Your task to perform on an android device: delete location history Image 0: 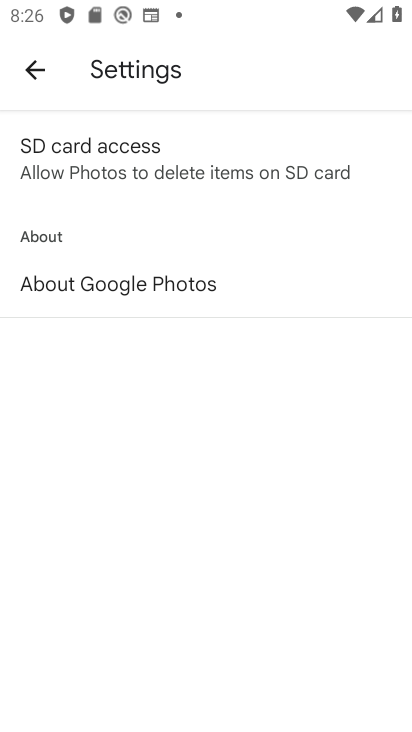
Step 0: press home button
Your task to perform on an android device: delete location history Image 1: 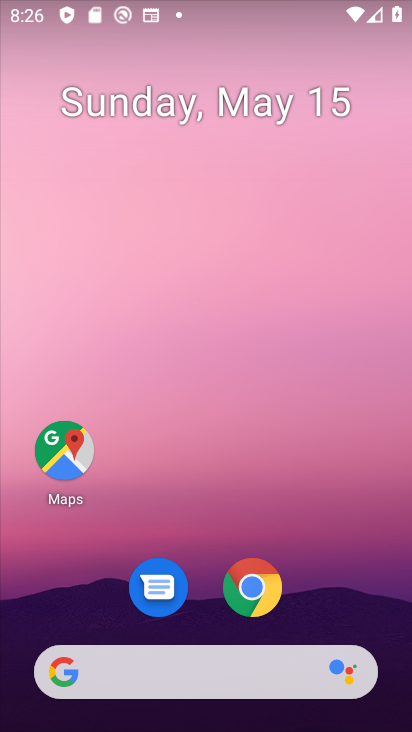
Step 1: drag from (374, 605) to (289, 16)
Your task to perform on an android device: delete location history Image 2: 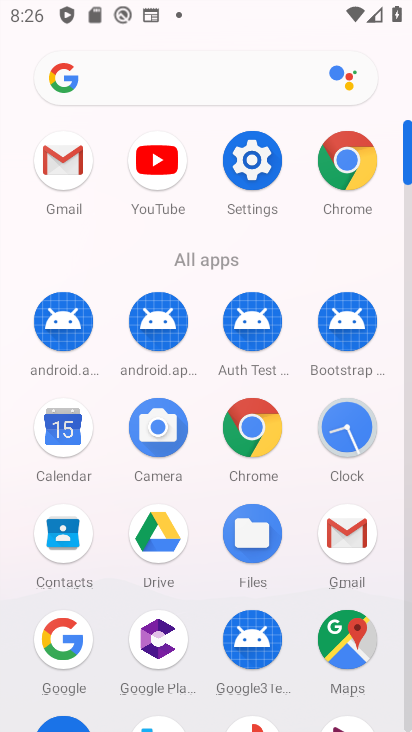
Step 2: click (245, 167)
Your task to perform on an android device: delete location history Image 3: 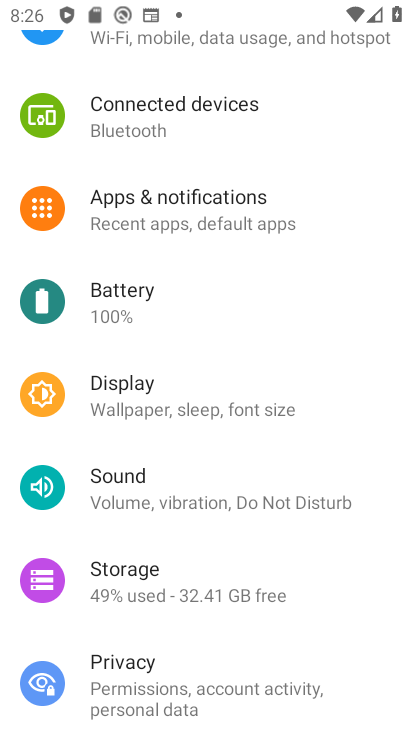
Step 3: drag from (116, 588) to (146, 116)
Your task to perform on an android device: delete location history Image 4: 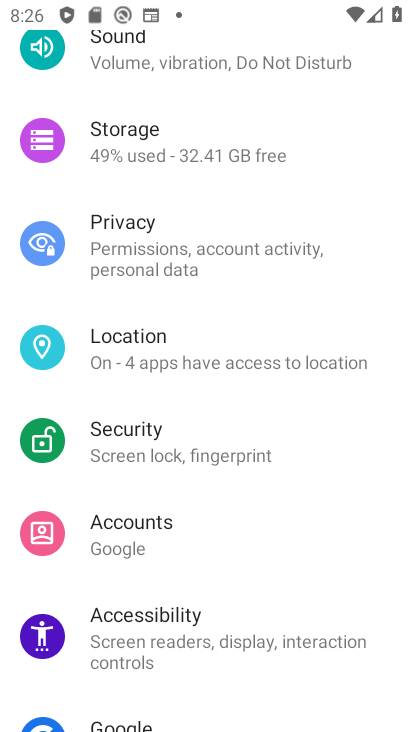
Step 4: click (196, 368)
Your task to perform on an android device: delete location history Image 5: 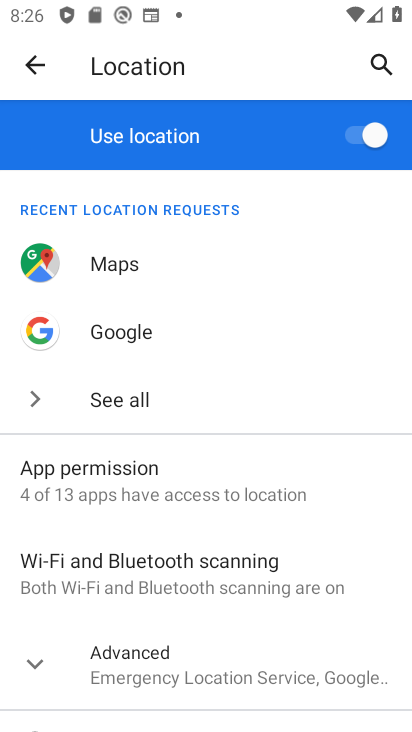
Step 5: drag from (173, 641) to (211, 225)
Your task to perform on an android device: delete location history Image 6: 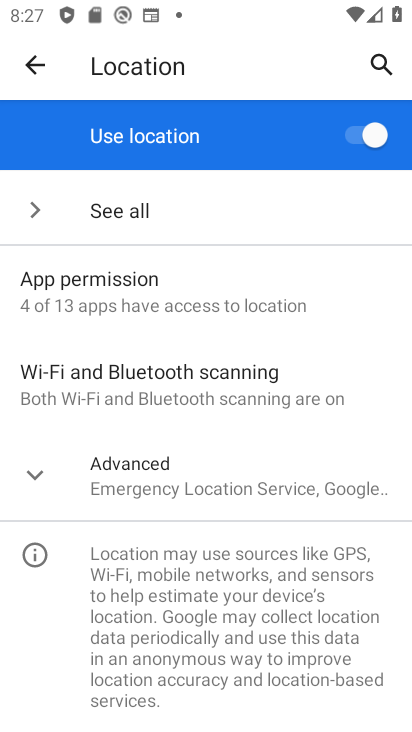
Step 6: click (139, 477)
Your task to perform on an android device: delete location history Image 7: 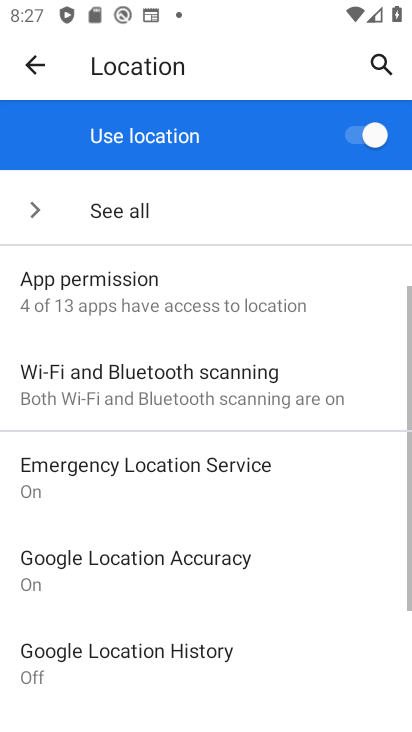
Step 7: click (214, 350)
Your task to perform on an android device: delete location history Image 8: 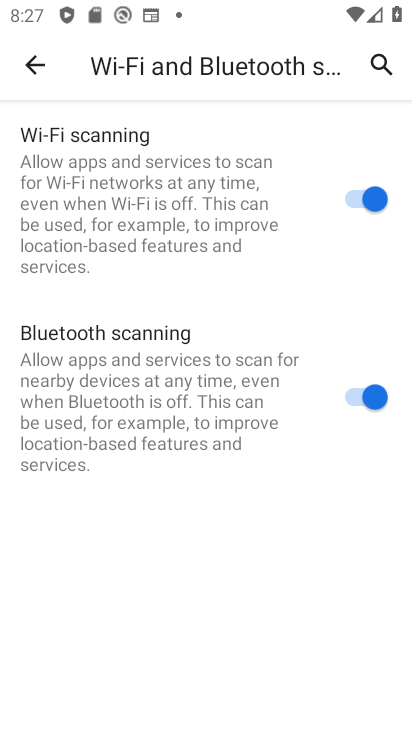
Step 8: press back button
Your task to perform on an android device: delete location history Image 9: 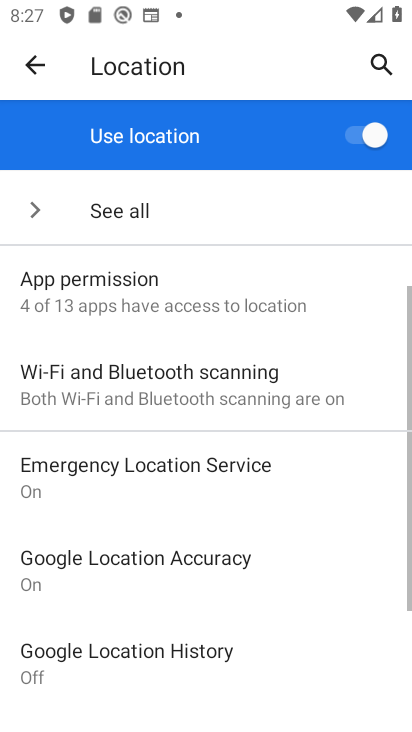
Step 9: click (217, 649)
Your task to perform on an android device: delete location history Image 10: 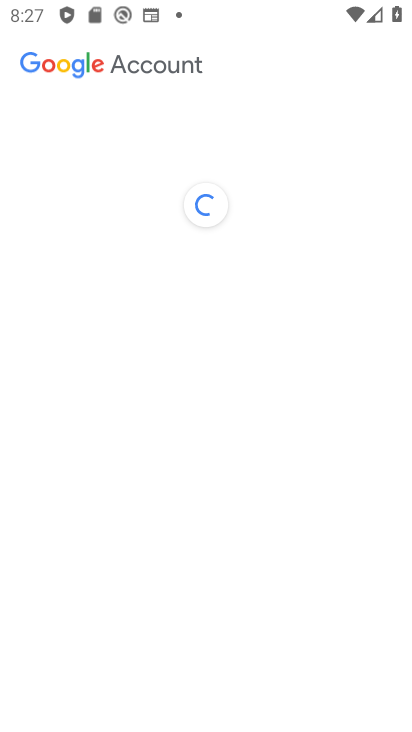
Step 10: drag from (213, 640) to (226, 165)
Your task to perform on an android device: delete location history Image 11: 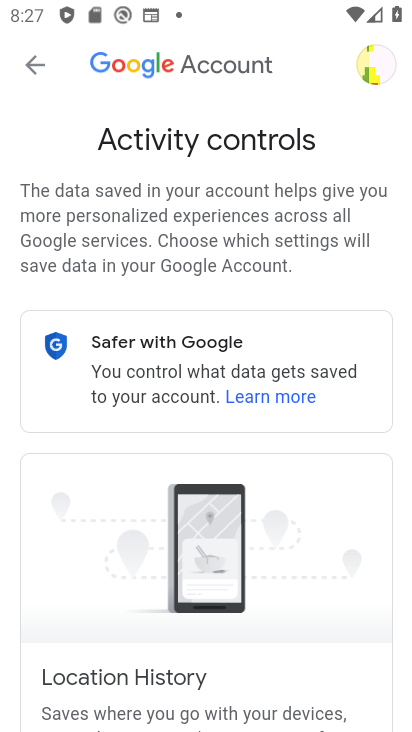
Step 11: drag from (276, 588) to (218, 30)
Your task to perform on an android device: delete location history Image 12: 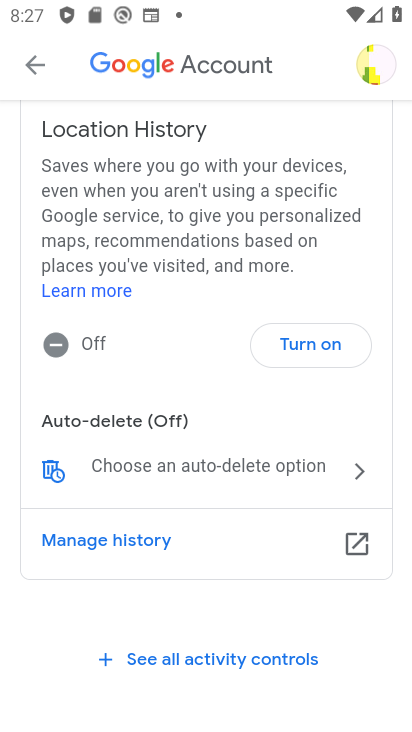
Step 12: click (209, 473)
Your task to perform on an android device: delete location history Image 13: 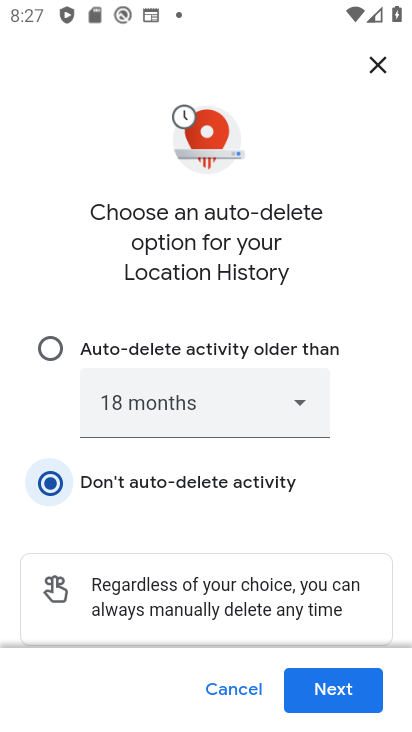
Step 13: click (350, 682)
Your task to perform on an android device: delete location history Image 14: 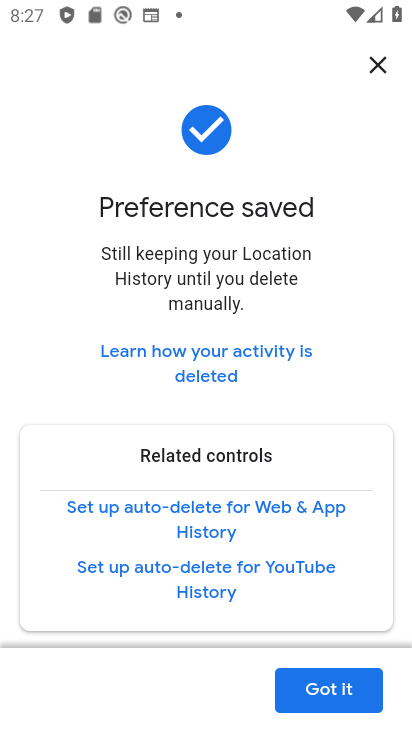
Step 14: click (328, 696)
Your task to perform on an android device: delete location history Image 15: 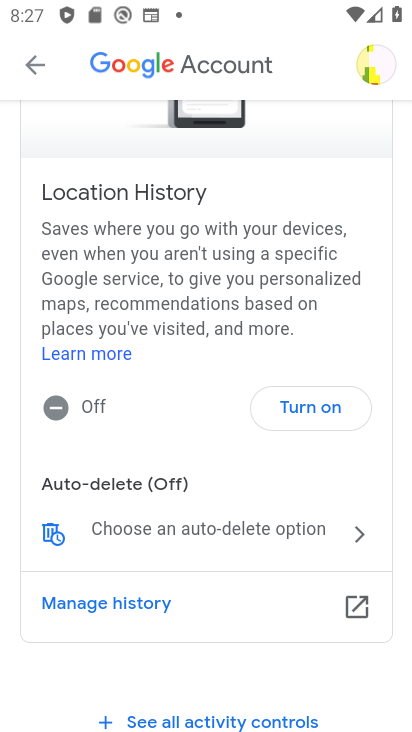
Step 15: task complete